Your task to perform on an android device: Open Wikipedia Image 0: 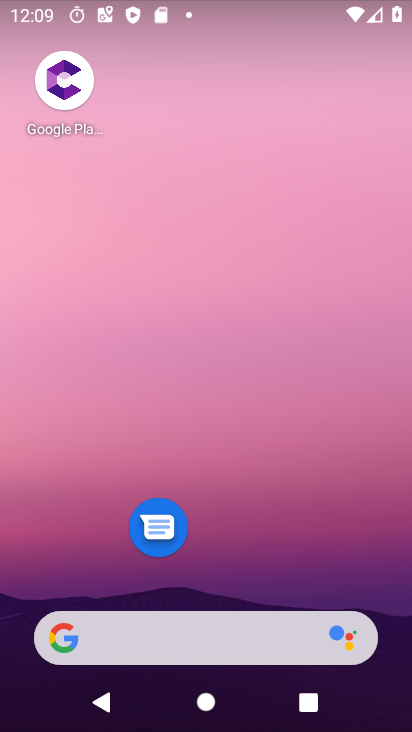
Step 0: drag from (232, 575) to (291, 154)
Your task to perform on an android device: Open Wikipedia Image 1: 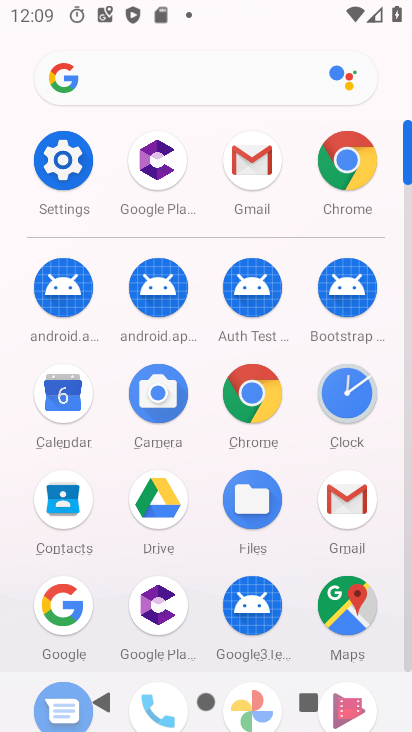
Step 1: click (244, 405)
Your task to perform on an android device: Open Wikipedia Image 2: 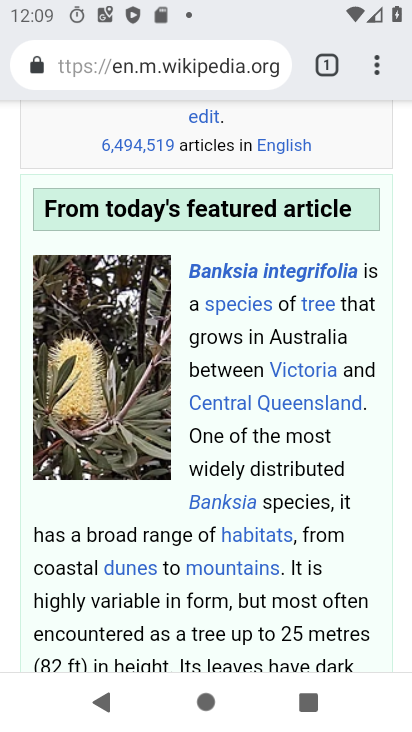
Step 2: click (228, 71)
Your task to perform on an android device: Open Wikipedia Image 3: 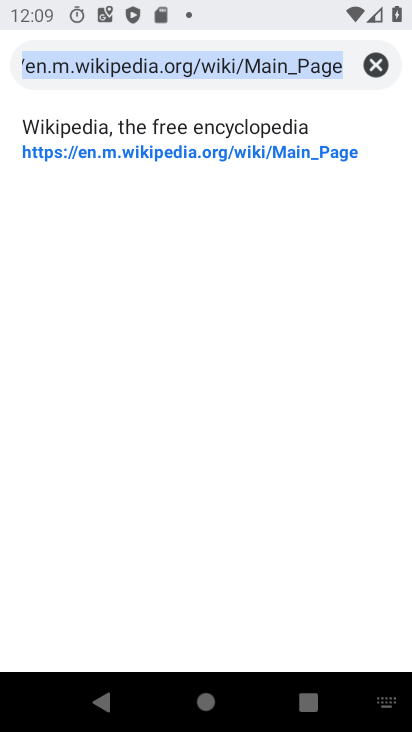
Step 3: type "wiikipedia"
Your task to perform on an android device: Open Wikipedia Image 4: 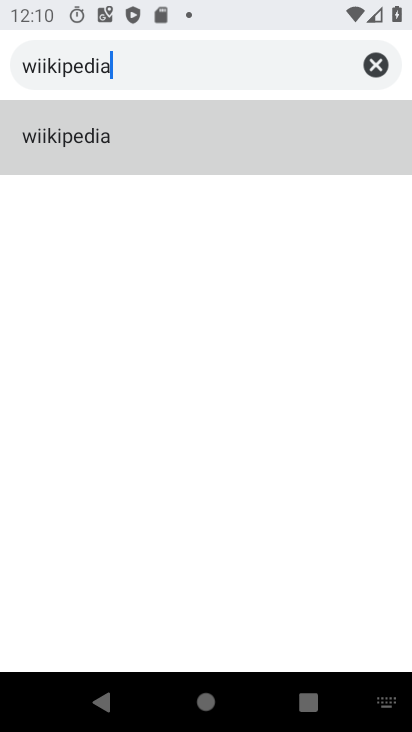
Step 4: click (218, 152)
Your task to perform on an android device: Open Wikipedia Image 5: 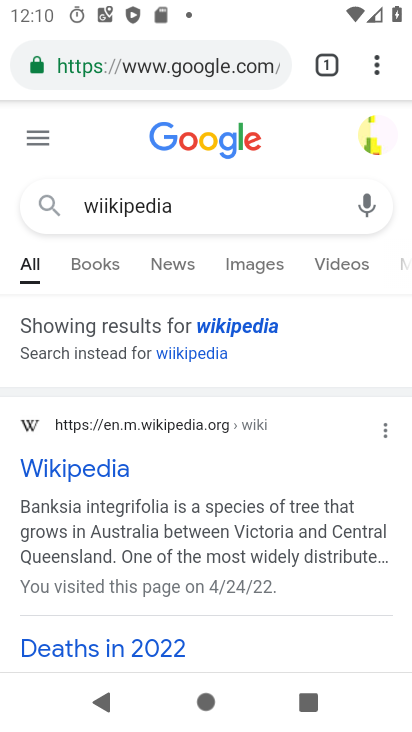
Step 5: task complete